Your task to perform on an android device: How do I get to the nearest Walmart? Image 0: 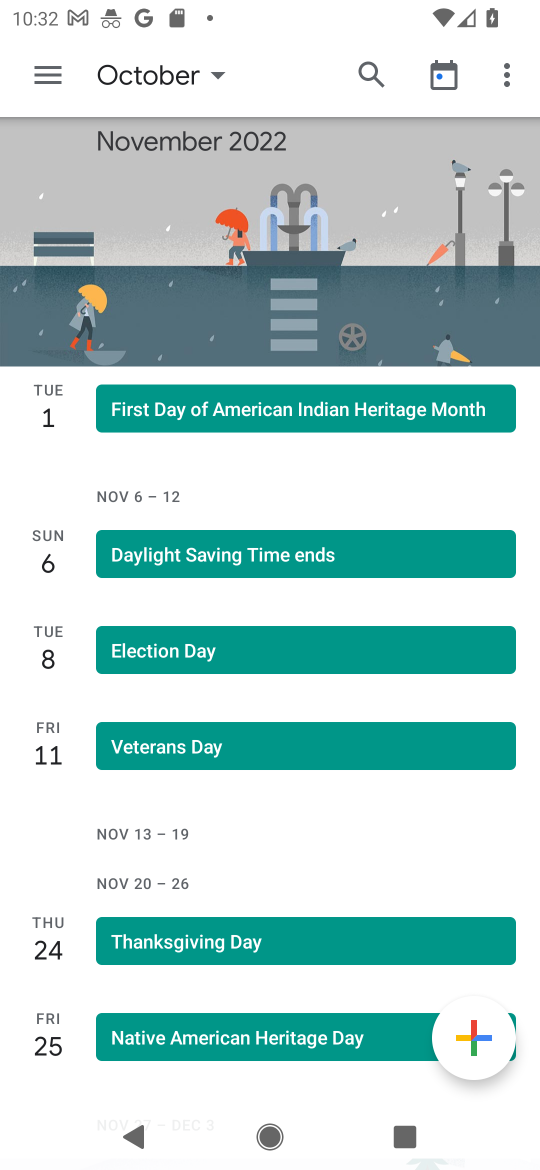
Step 0: press home button
Your task to perform on an android device: How do I get to the nearest Walmart? Image 1: 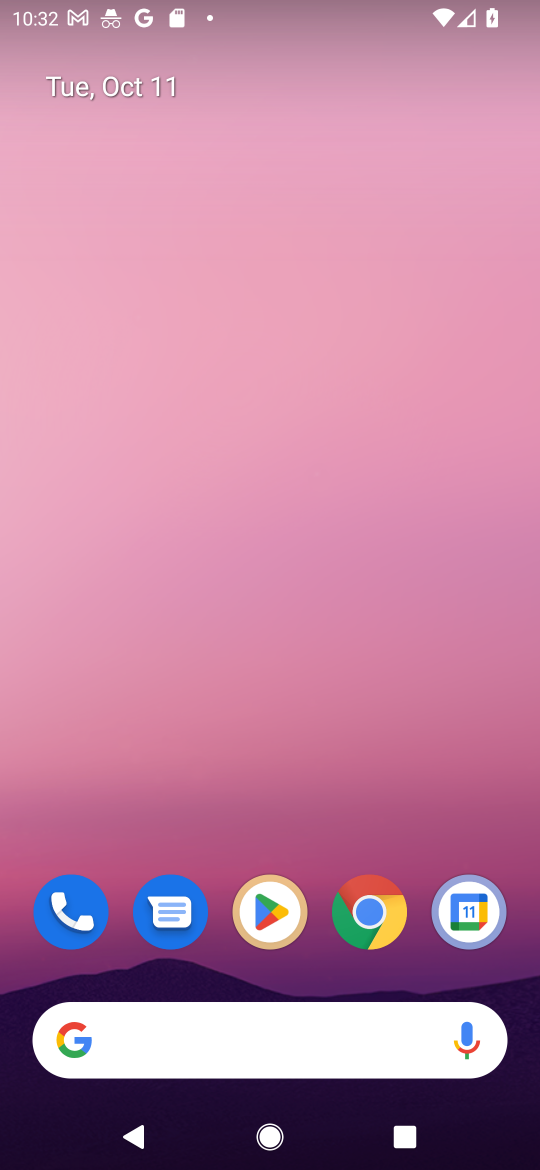
Step 1: click (361, 918)
Your task to perform on an android device: How do I get to the nearest Walmart? Image 2: 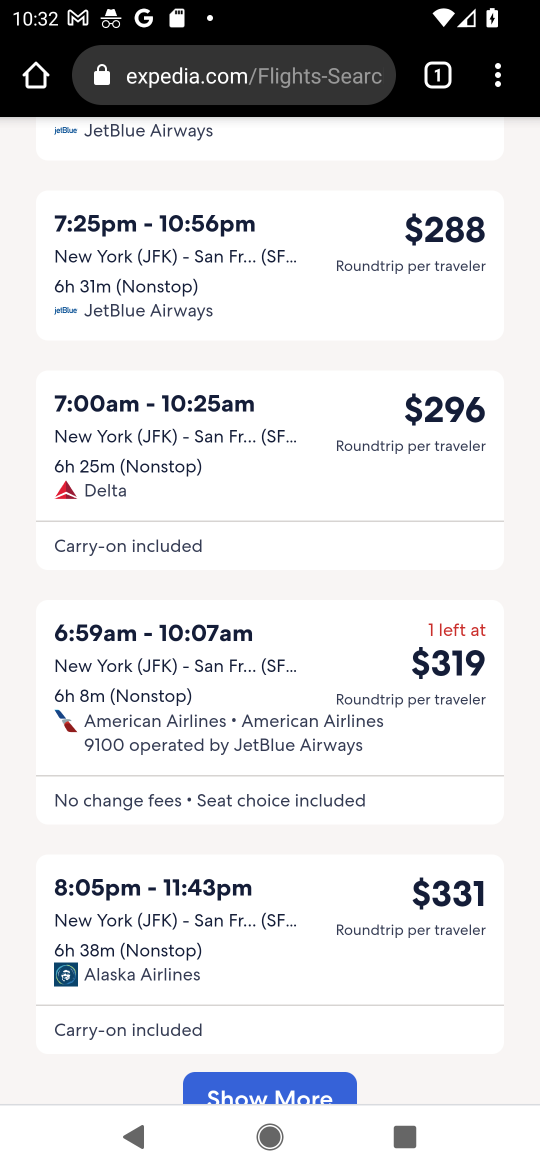
Step 2: click (241, 51)
Your task to perform on an android device: How do I get to the nearest Walmart? Image 3: 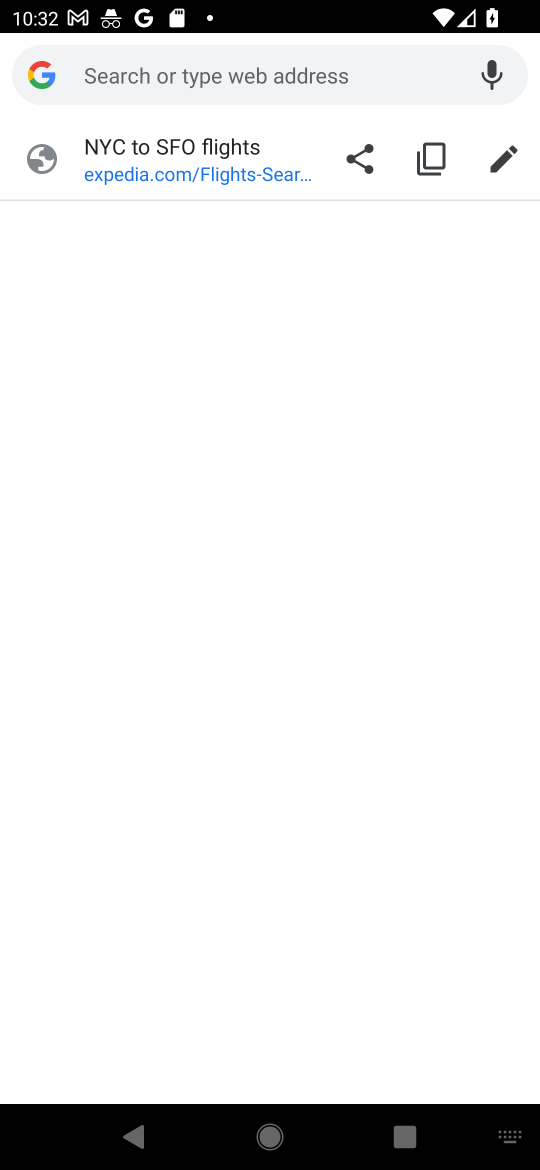
Step 3: type "nearest Walmart"
Your task to perform on an android device: How do I get to the nearest Walmart? Image 4: 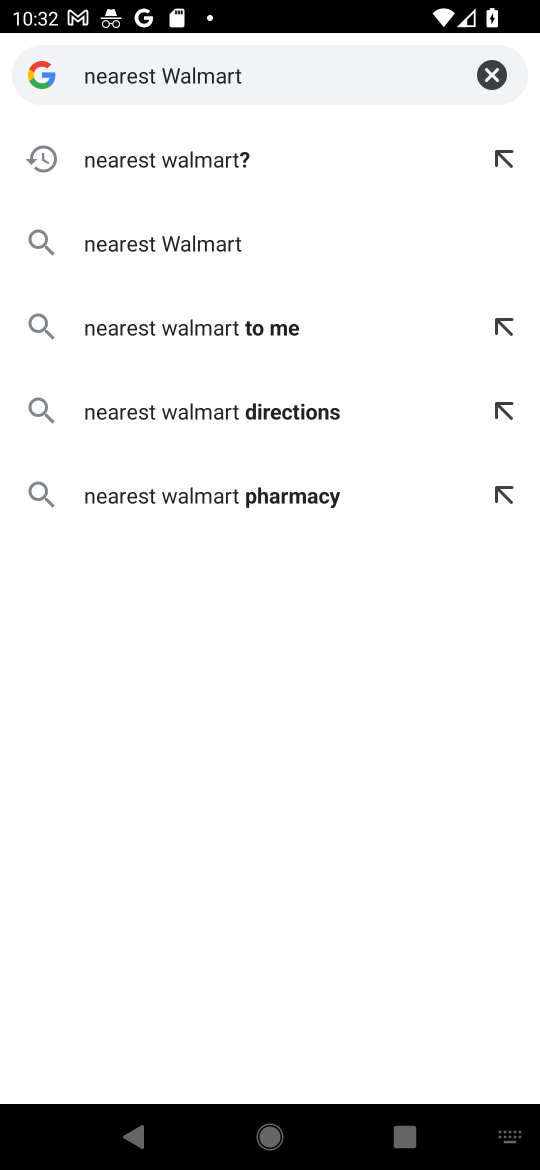
Step 4: click (117, 164)
Your task to perform on an android device: How do I get to the nearest Walmart? Image 5: 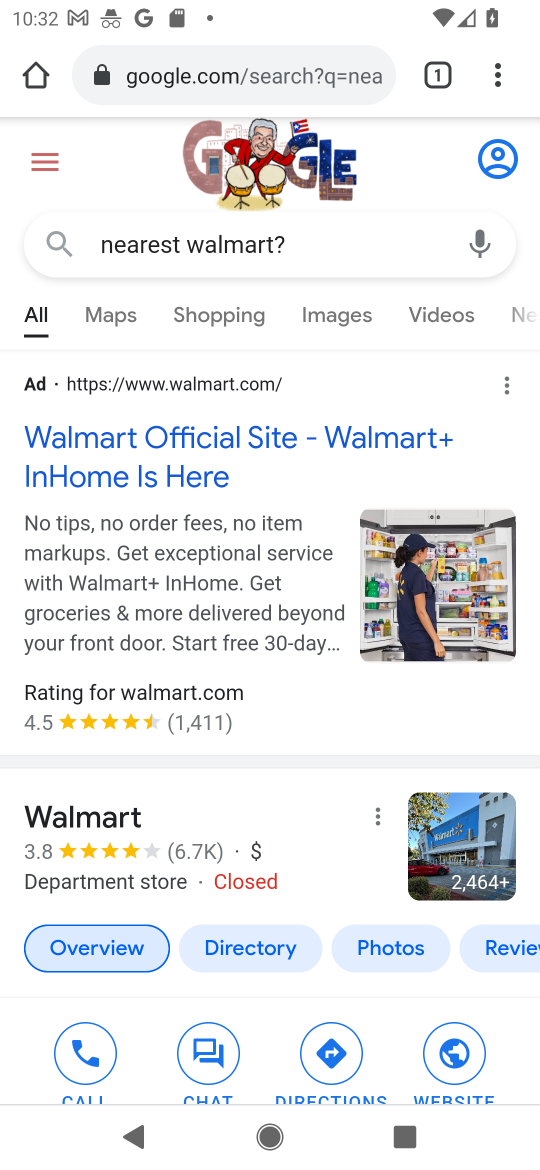
Step 5: drag from (158, 770) to (96, 178)
Your task to perform on an android device: How do I get to the nearest Walmart? Image 6: 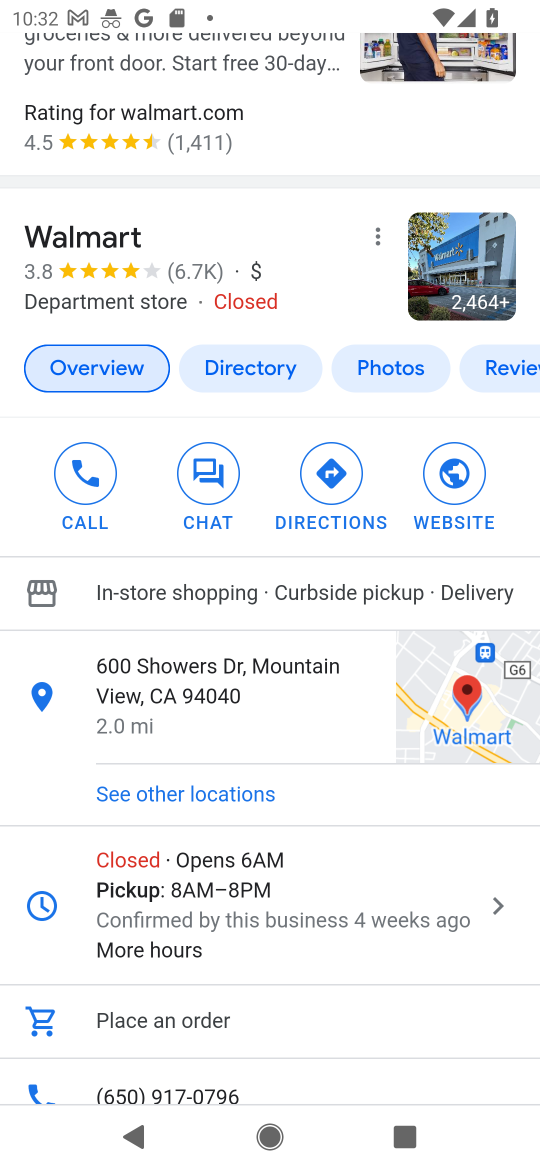
Step 6: drag from (265, 632) to (209, 144)
Your task to perform on an android device: How do I get to the nearest Walmart? Image 7: 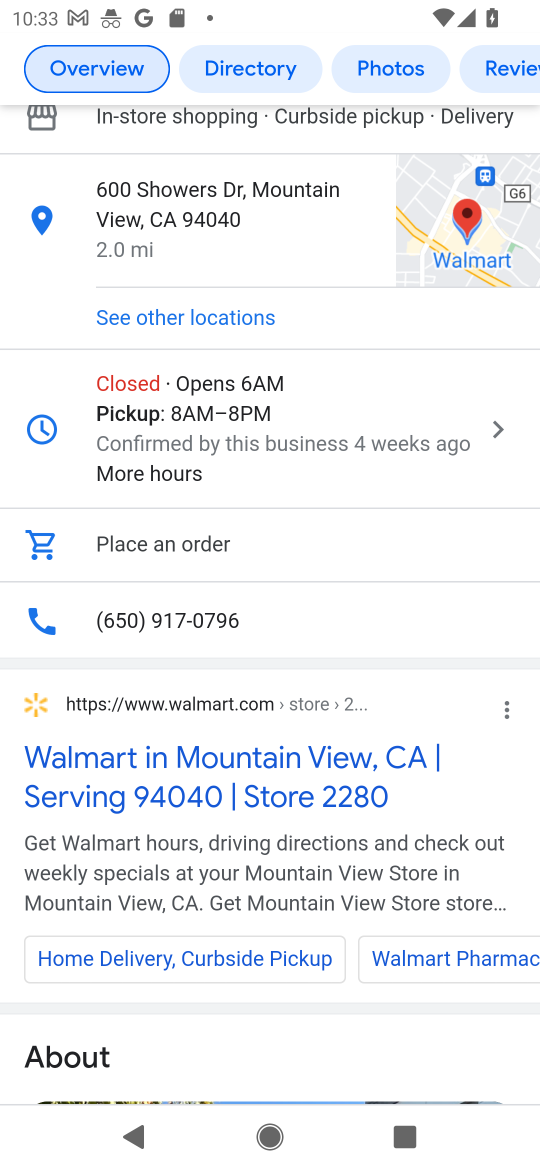
Step 7: drag from (293, 656) to (268, 363)
Your task to perform on an android device: How do I get to the nearest Walmart? Image 8: 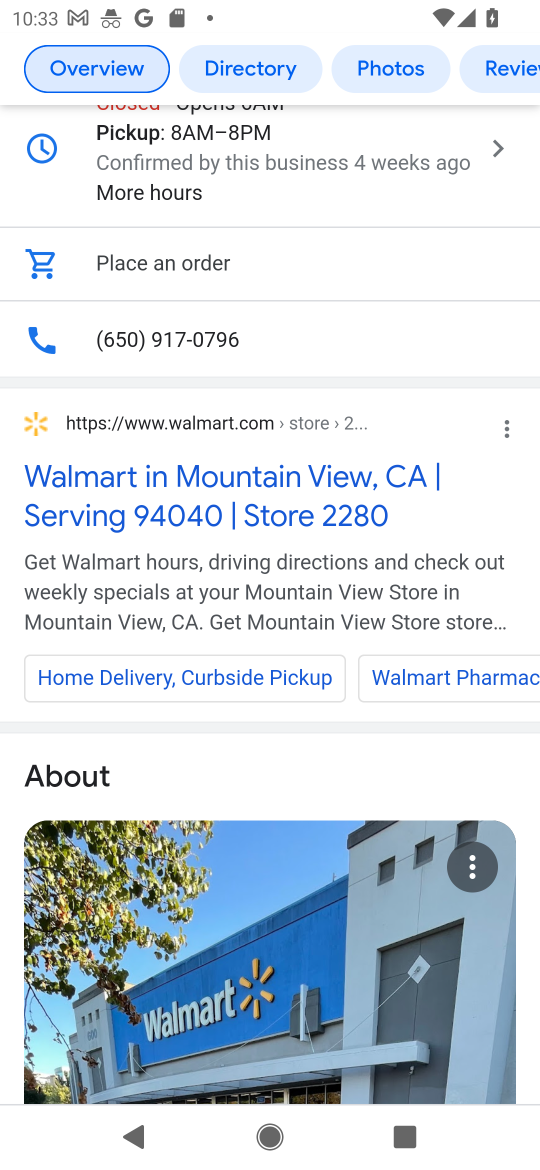
Step 8: drag from (301, 743) to (301, 365)
Your task to perform on an android device: How do I get to the nearest Walmart? Image 9: 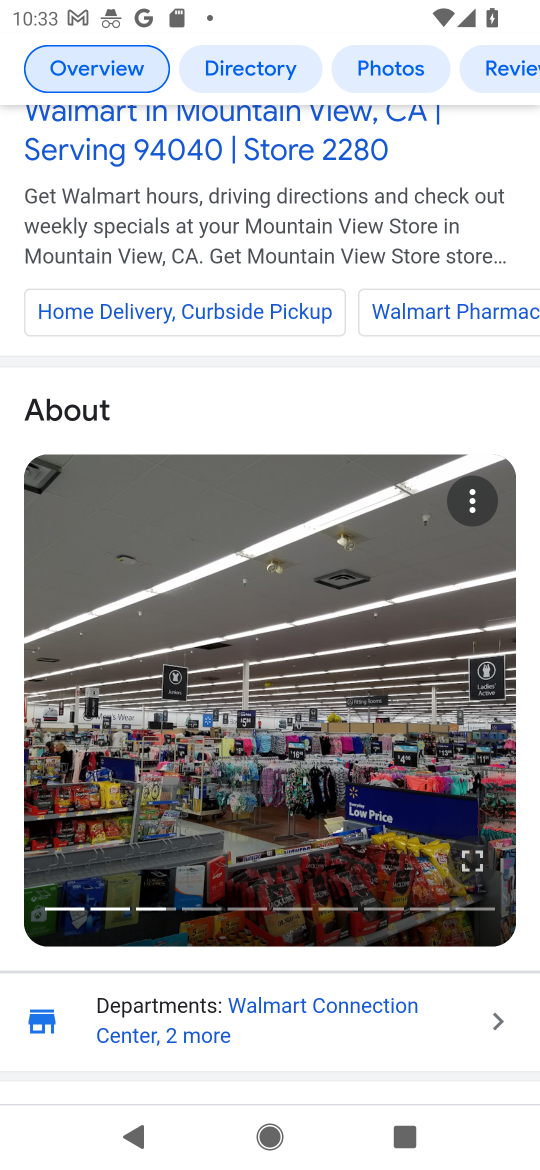
Step 9: drag from (322, 226) to (286, 536)
Your task to perform on an android device: How do I get to the nearest Walmart? Image 10: 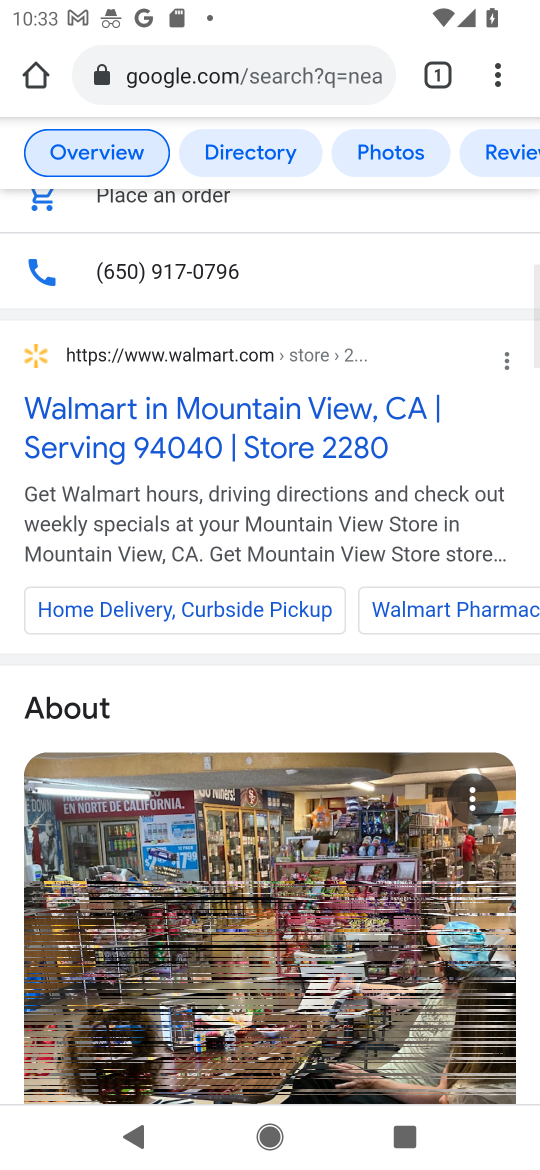
Step 10: drag from (298, 271) to (259, 652)
Your task to perform on an android device: How do I get to the nearest Walmart? Image 11: 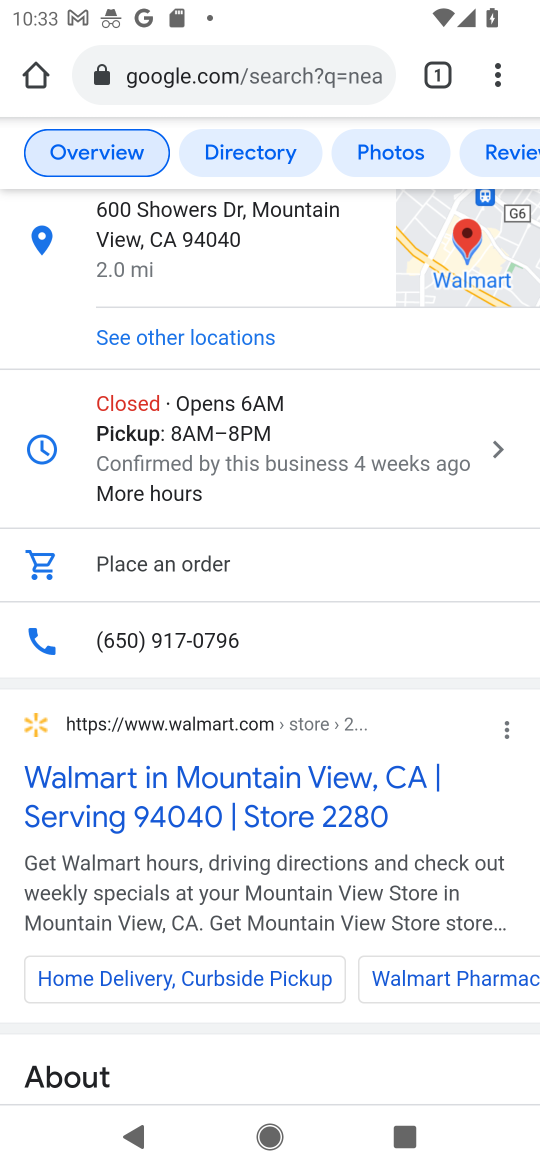
Step 11: drag from (306, 350) to (242, 691)
Your task to perform on an android device: How do I get to the nearest Walmart? Image 12: 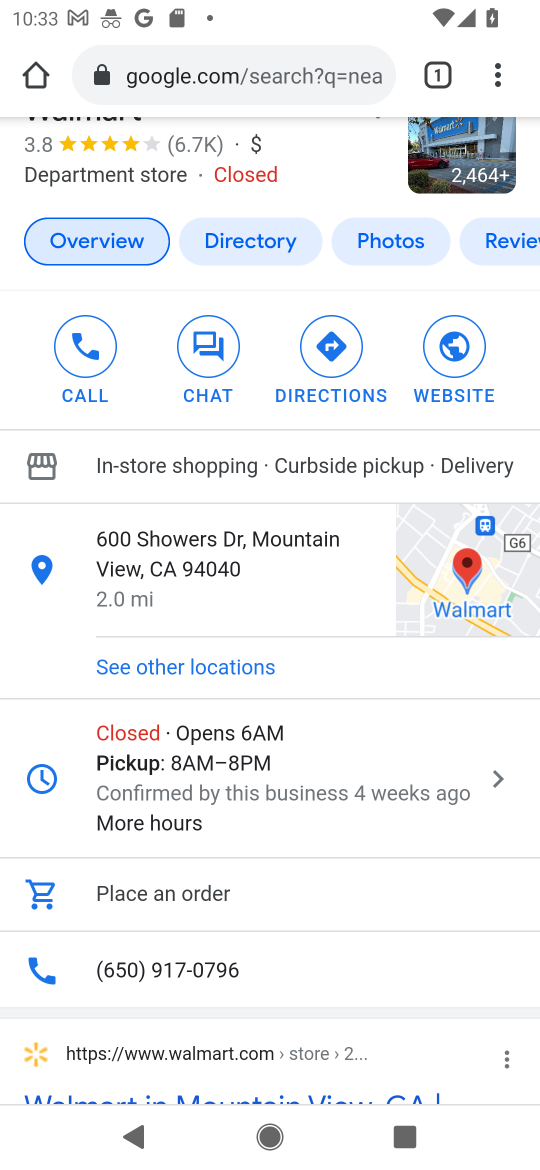
Step 12: click (466, 559)
Your task to perform on an android device: How do I get to the nearest Walmart? Image 13: 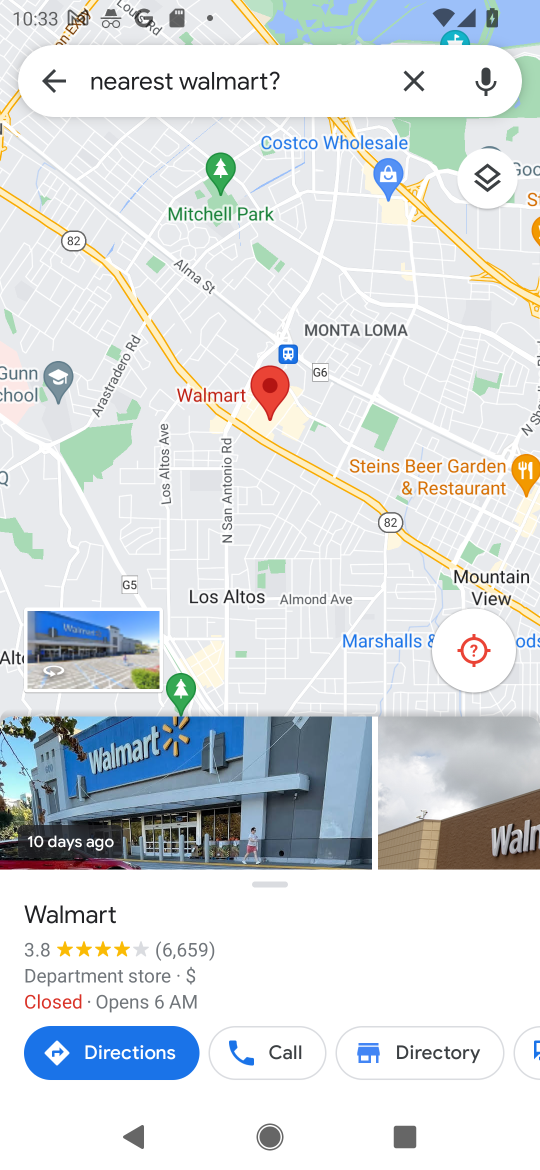
Step 13: task complete